Your task to perform on an android device: open a bookmark in the chrome app Image 0: 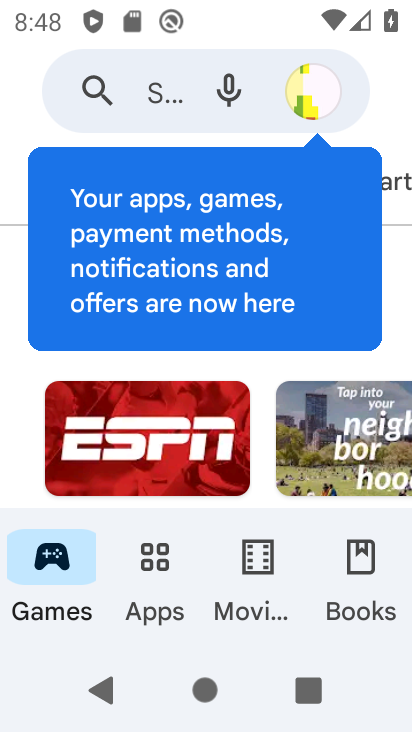
Step 0: press home button
Your task to perform on an android device: open a bookmark in the chrome app Image 1: 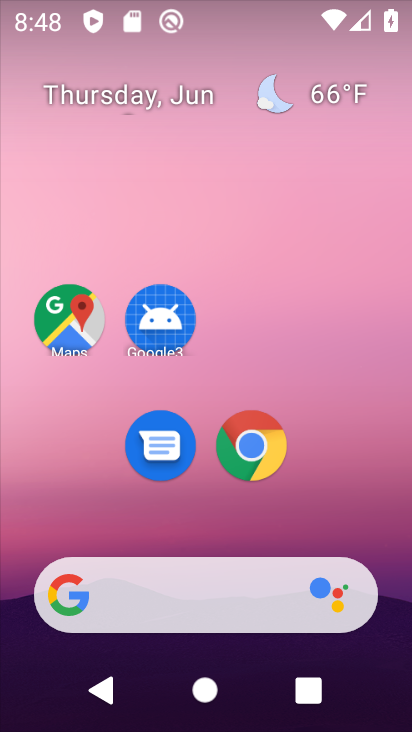
Step 1: click (254, 444)
Your task to perform on an android device: open a bookmark in the chrome app Image 2: 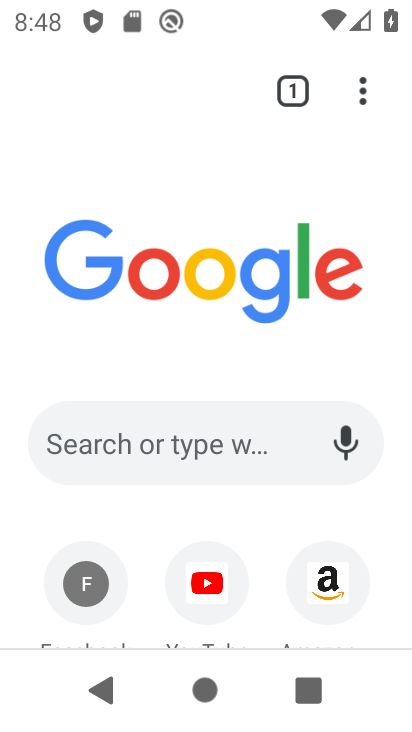
Step 2: click (361, 104)
Your task to perform on an android device: open a bookmark in the chrome app Image 3: 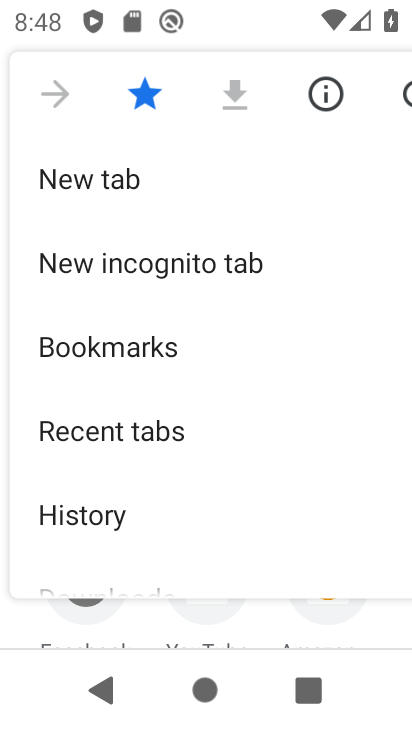
Step 3: click (110, 352)
Your task to perform on an android device: open a bookmark in the chrome app Image 4: 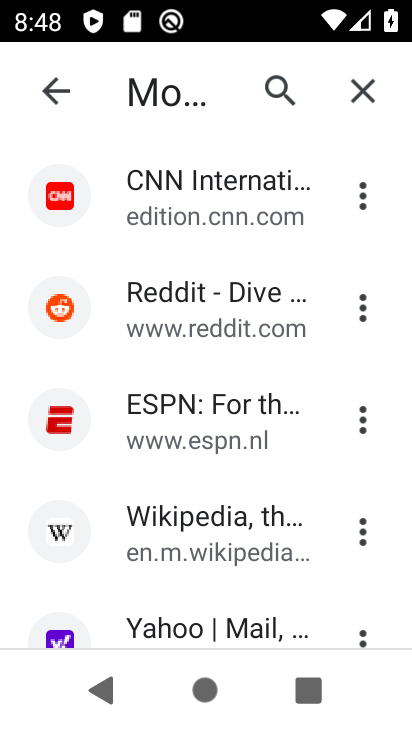
Step 4: click (197, 332)
Your task to perform on an android device: open a bookmark in the chrome app Image 5: 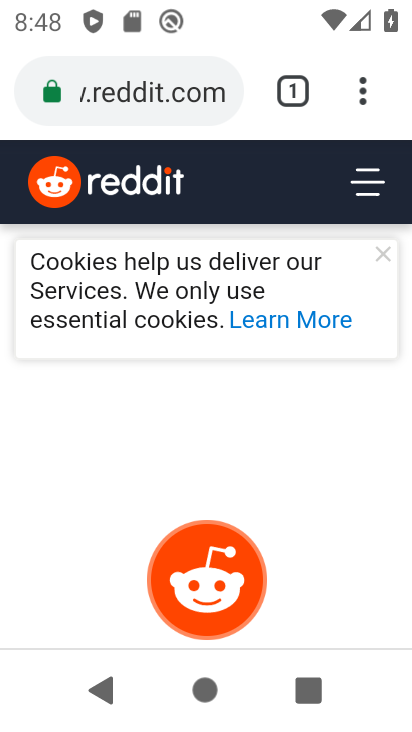
Step 5: task complete